Your task to perform on an android device: turn off airplane mode Image 0: 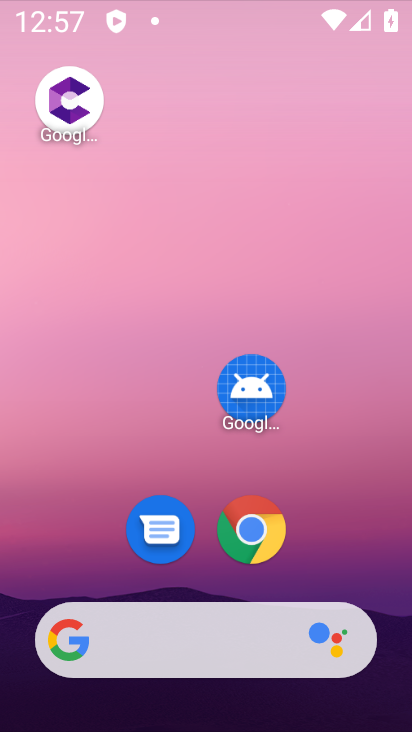
Step 0: drag from (227, 640) to (258, 71)
Your task to perform on an android device: turn off airplane mode Image 1: 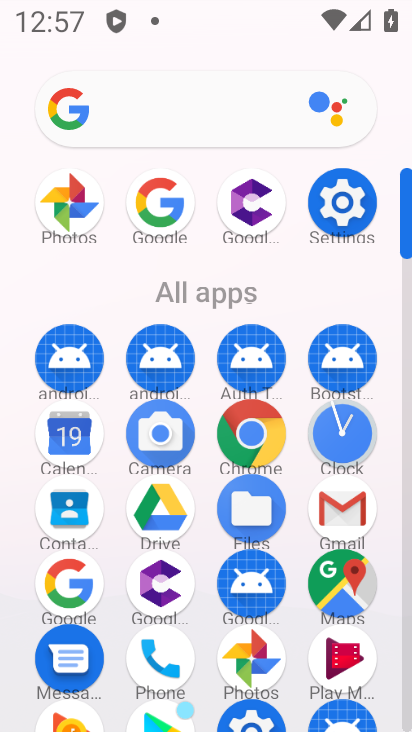
Step 1: click (355, 225)
Your task to perform on an android device: turn off airplane mode Image 2: 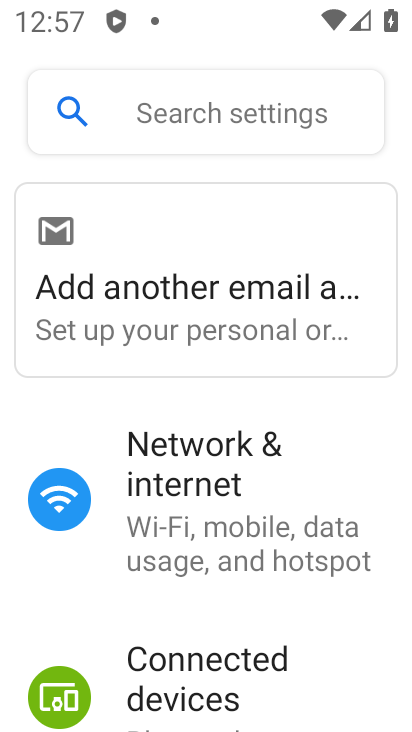
Step 2: drag from (208, 501) to (204, 289)
Your task to perform on an android device: turn off airplane mode Image 3: 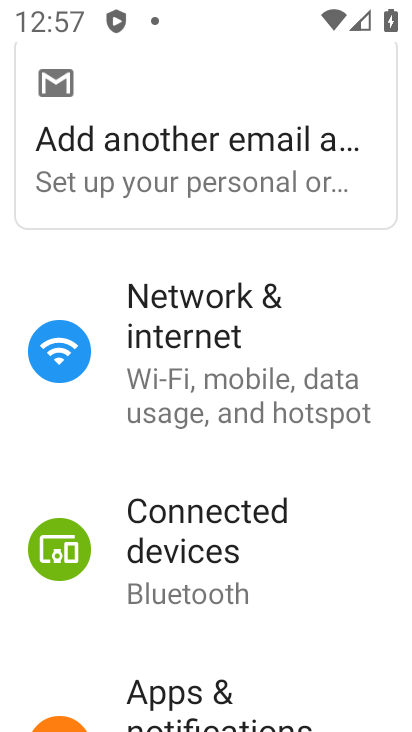
Step 3: click (239, 355)
Your task to perform on an android device: turn off airplane mode Image 4: 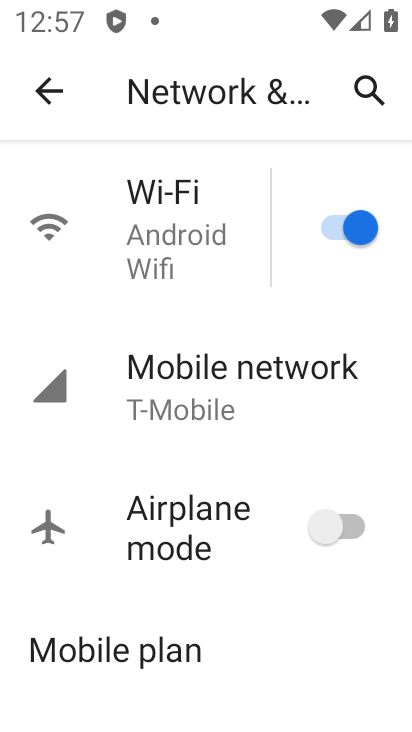
Step 4: task complete